Your task to perform on an android device: see sites visited before in the chrome app Image 0: 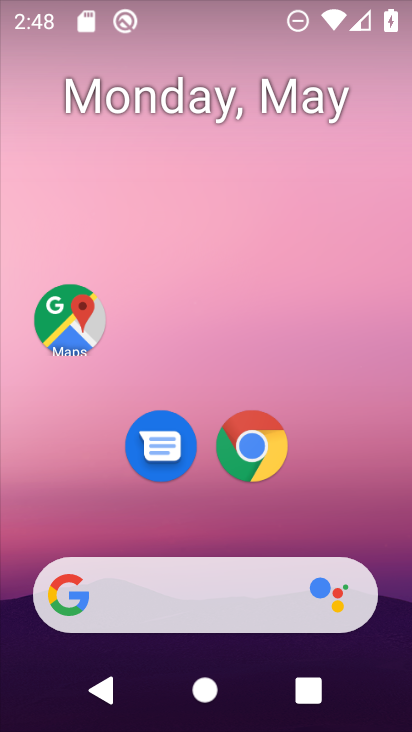
Step 0: click (253, 453)
Your task to perform on an android device: see sites visited before in the chrome app Image 1: 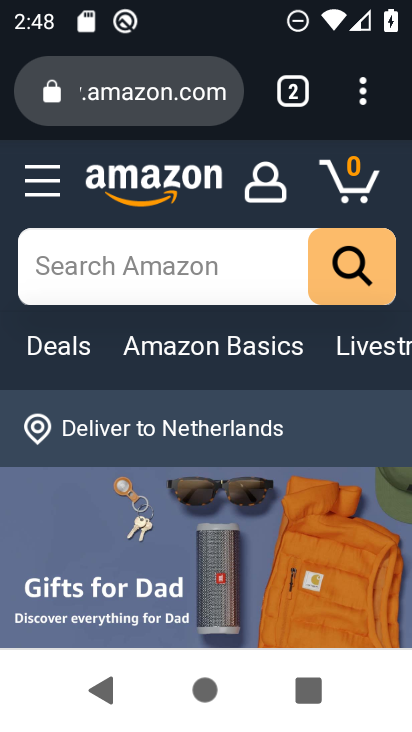
Step 1: click (377, 100)
Your task to perform on an android device: see sites visited before in the chrome app Image 2: 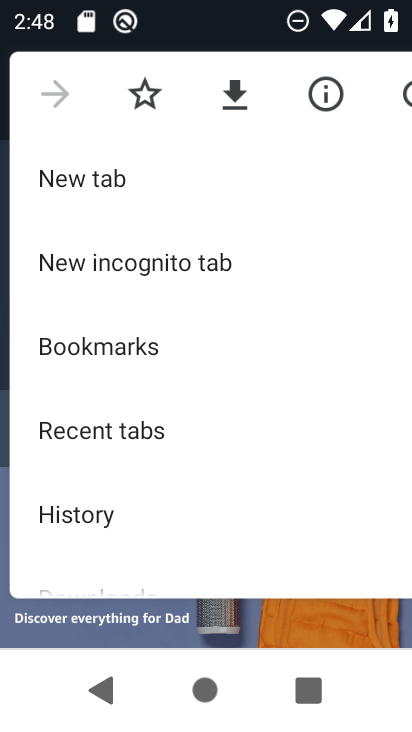
Step 2: click (100, 430)
Your task to perform on an android device: see sites visited before in the chrome app Image 3: 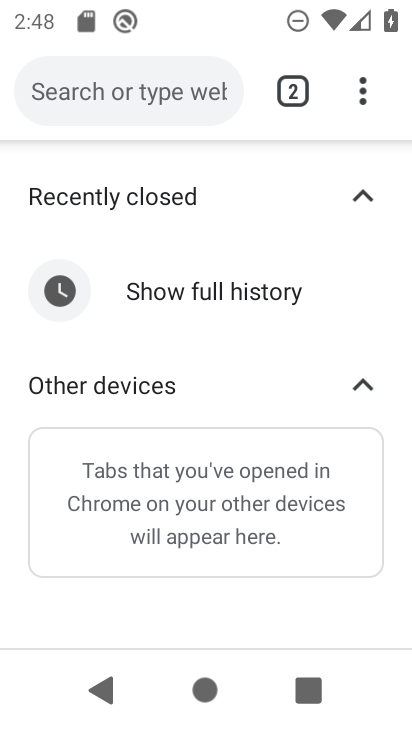
Step 3: task complete